Your task to perform on an android device: change notifications settings Image 0: 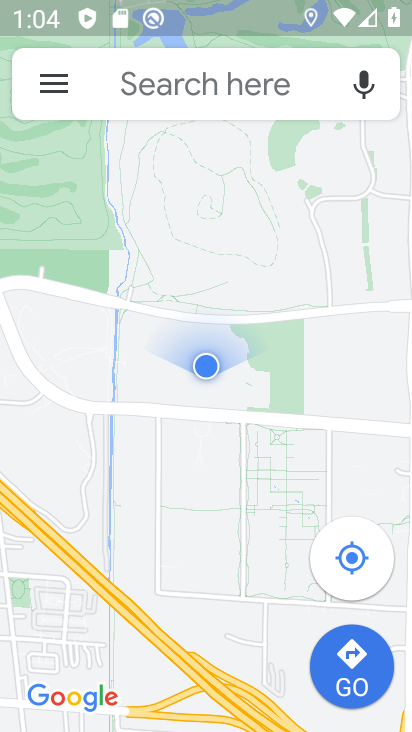
Step 0: press back button
Your task to perform on an android device: change notifications settings Image 1: 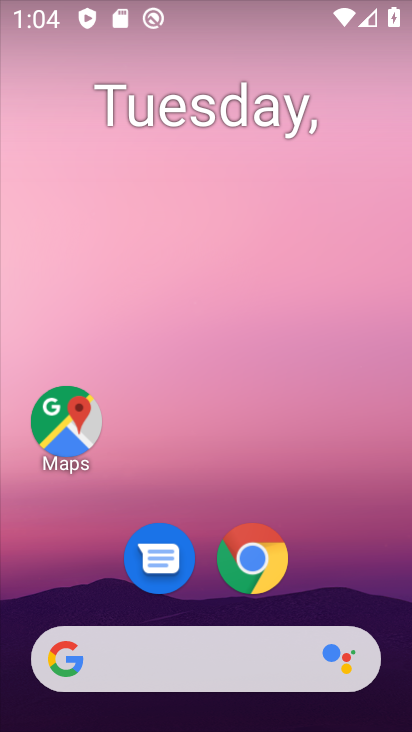
Step 1: drag from (187, 598) to (295, 132)
Your task to perform on an android device: change notifications settings Image 2: 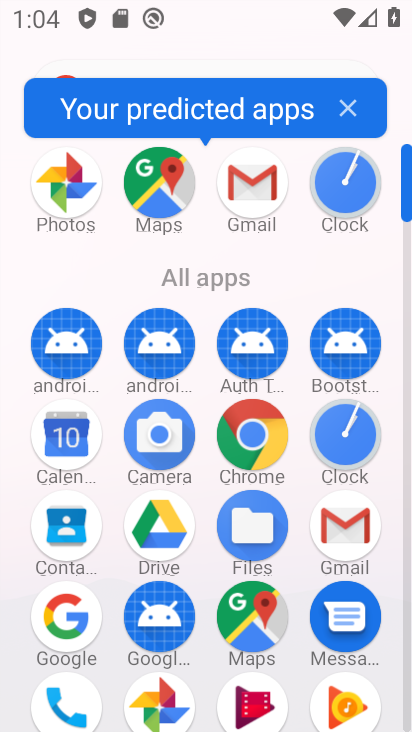
Step 2: drag from (172, 611) to (275, 229)
Your task to perform on an android device: change notifications settings Image 3: 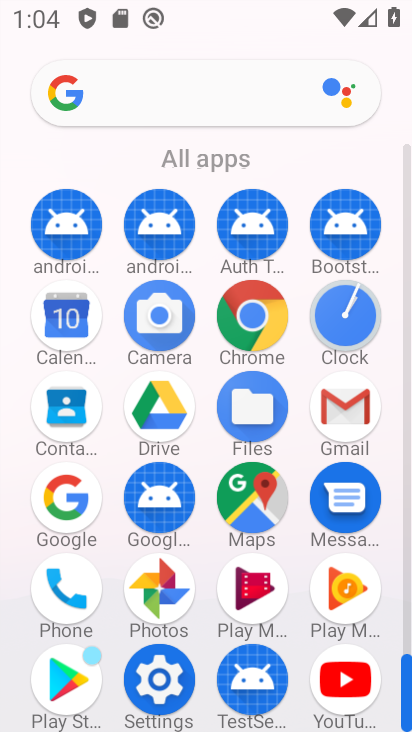
Step 3: click (170, 676)
Your task to perform on an android device: change notifications settings Image 4: 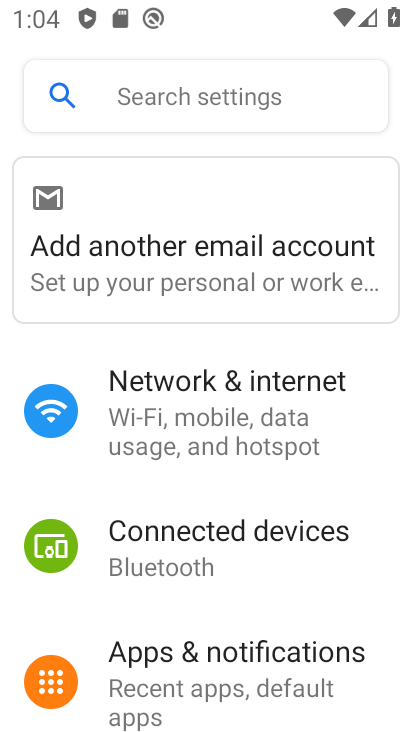
Step 4: click (210, 687)
Your task to perform on an android device: change notifications settings Image 5: 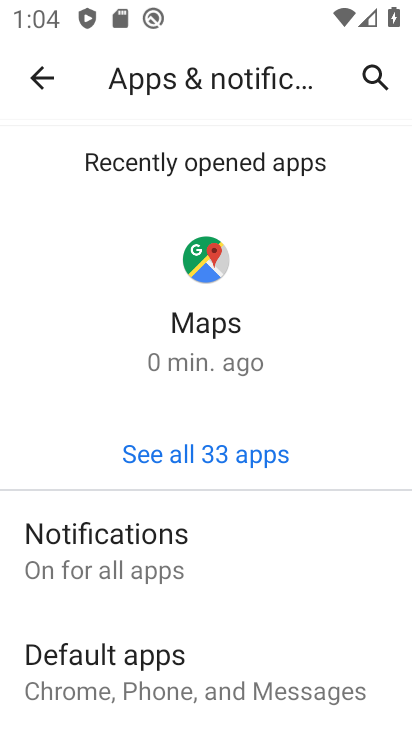
Step 5: drag from (163, 591) to (256, 254)
Your task to perform on an android device: change notifications settings Image 6: 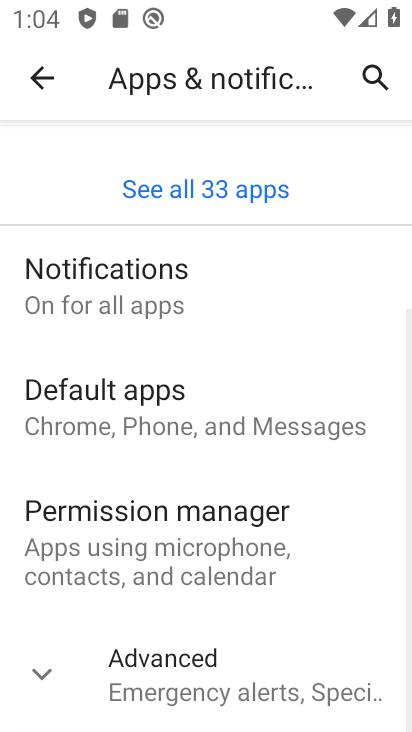
Step 6: click (120, 248)
Your task to perform on an android device: change notifications settings Image 7: 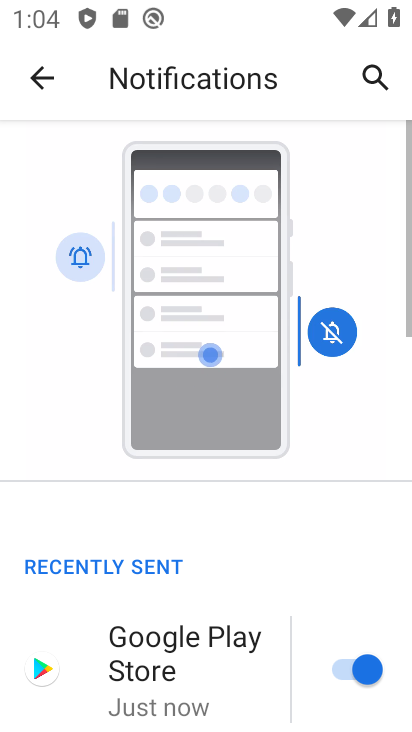
Step 7: drag from (161, 629) to (297, 177)
Your task to perform on an android device: change notifications settings Image 8: 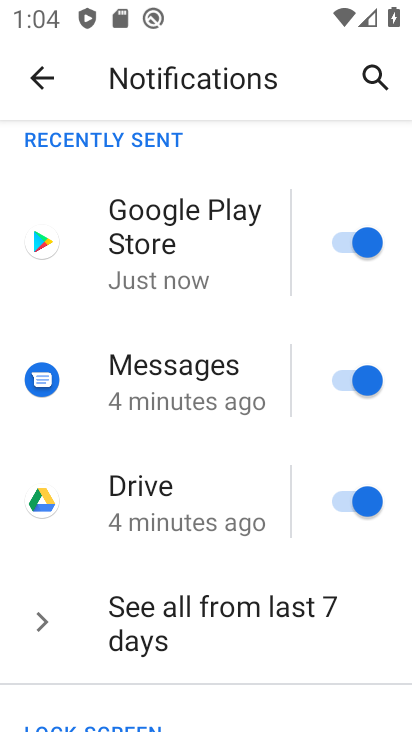
Step 8: drag from (159, 635) to (284, 159)
Your task to perform on an android device: change notifications settings Image 9: 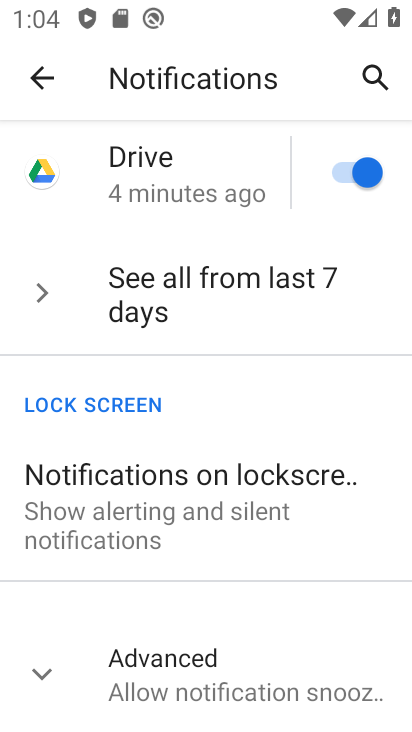
Step 9: click (172, 666)
Your task to perform on an android device: change notifications settings Image 10: 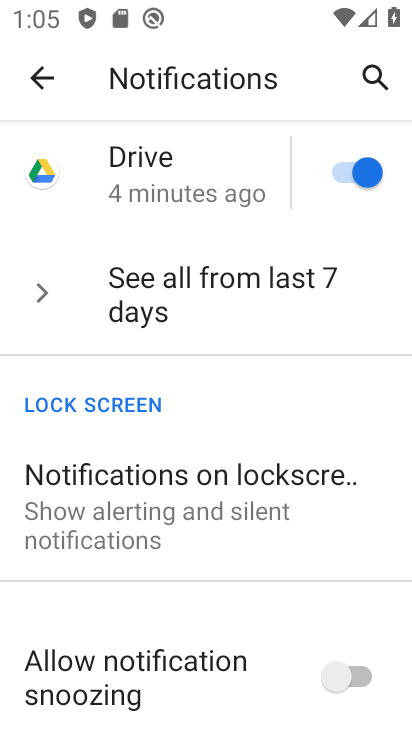
Step 10: drag from (210, 685) to (255, 282)
Your task to perform on an android device: change notifications settings Image 11: 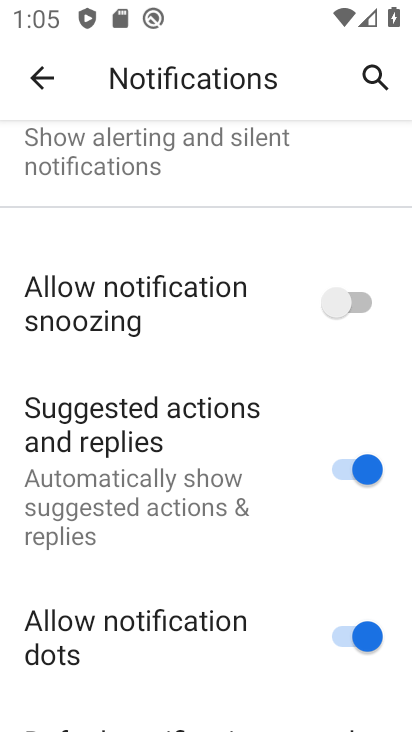
Step 11: click (341, 299)
Your task to perform on an android device: change notifications settings Image 12: 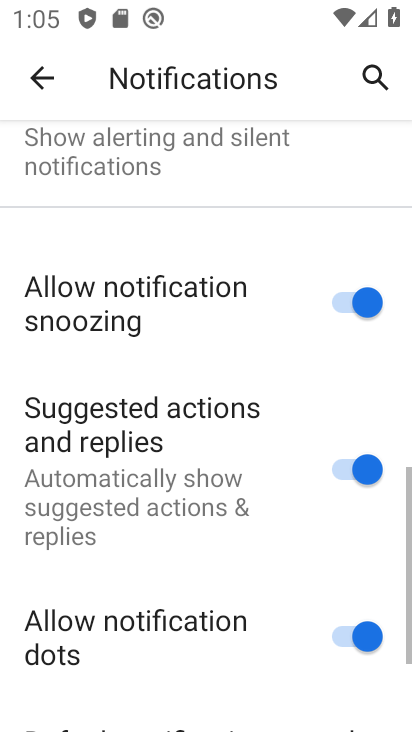
Step 12: task complete